Your task to perform on an android device: read, delete, or share a saved page in the chrome app Image 0: 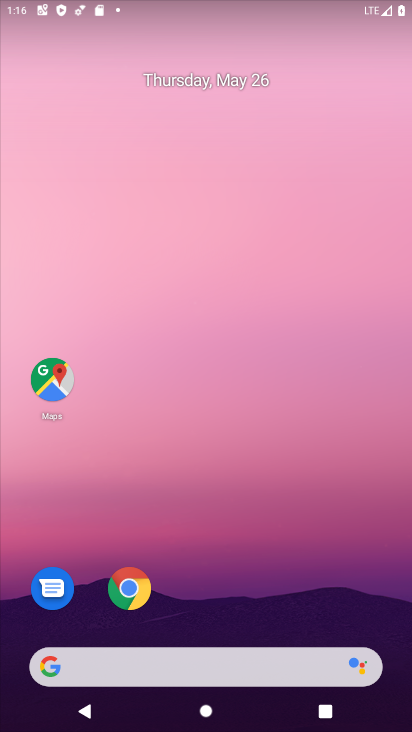
Step 0: click (142, 592)
Your task to perform on an android device: read, delete, or share a saved page in the chrome app Image 1: 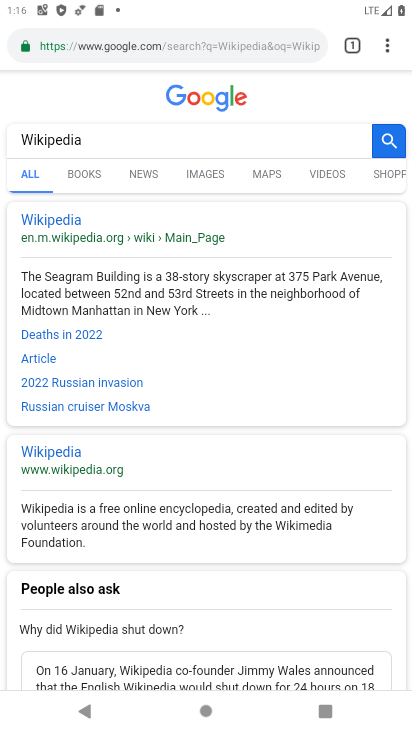
Step 1: click (387, 45)
Your task to perform on an android device: read, delete, or share a saved page in the chrome app Image 2: 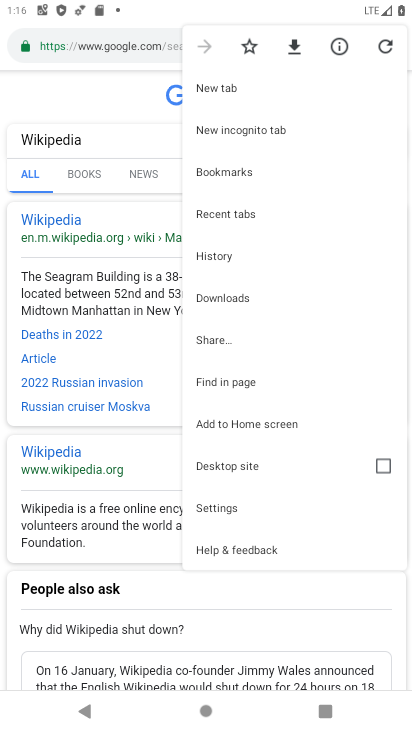
Step 2: click (206, 293)
Your task to perform on an android device: read, delete, or share a saved page in the chrome app Image 3: 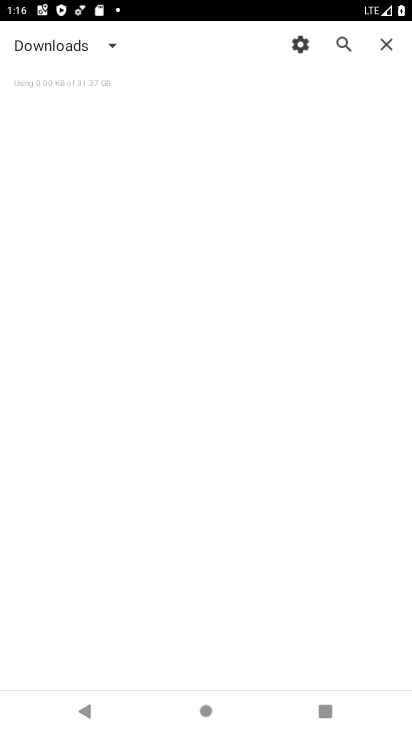
Step 3: task complete